Your task to perform on an android device: Go to sound settings Image 0: 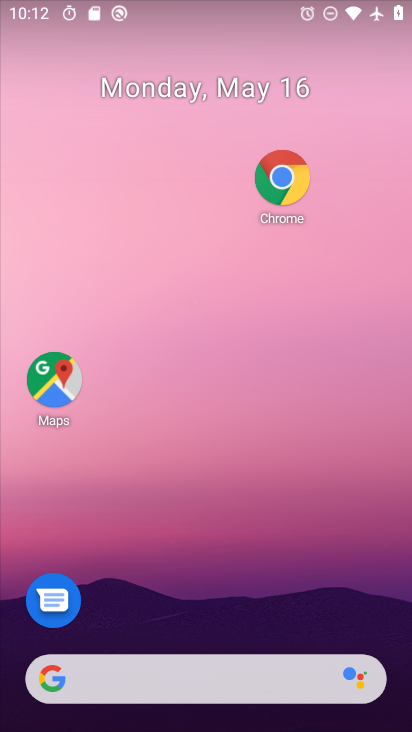
Step 0: drag from (206, 678) to (264, 204)
Your task to perform on an android device: Go to sound settings Image 1: 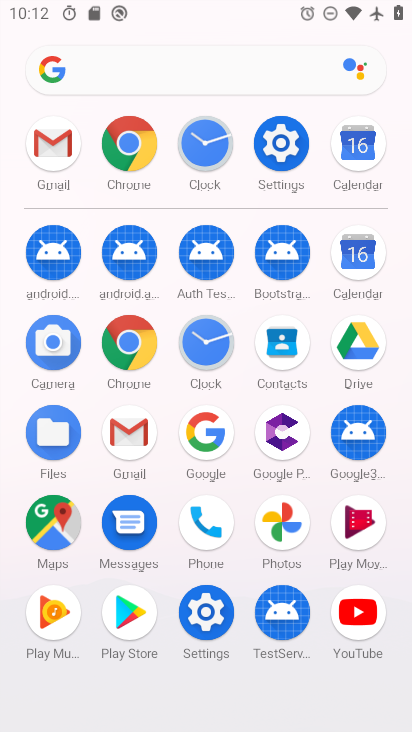
Step 1: click (290, 148)
Your task to perform on an android device: Go to sound settings Image 2: 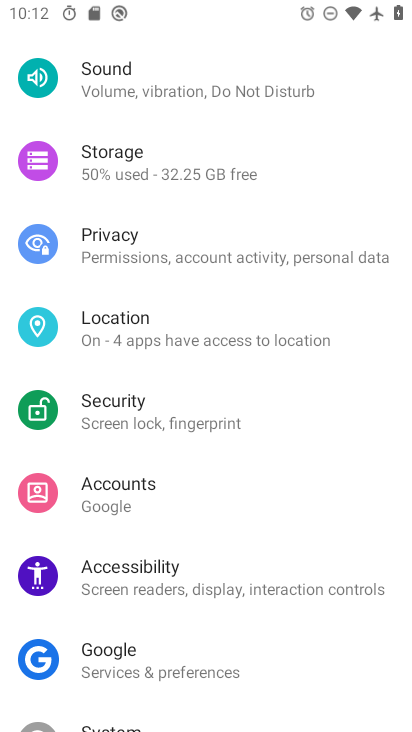
Step 2: click (136, 77)
Your task to perform on an android device: Go to sound settings Image 3: 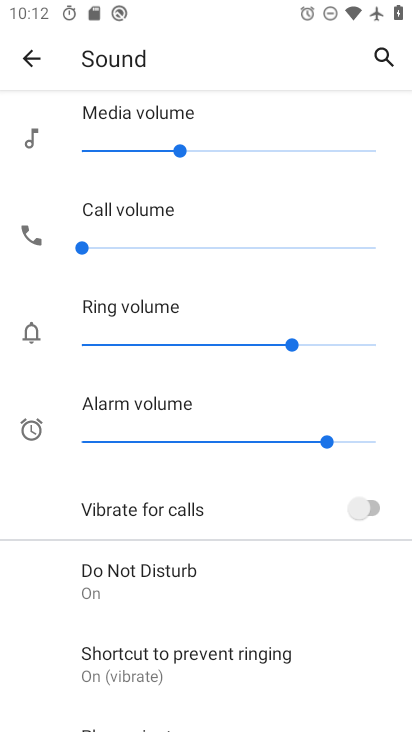
Step 3: task complete